Your task to perform on an android device: manage bookmarks in the chrome app Image 0: 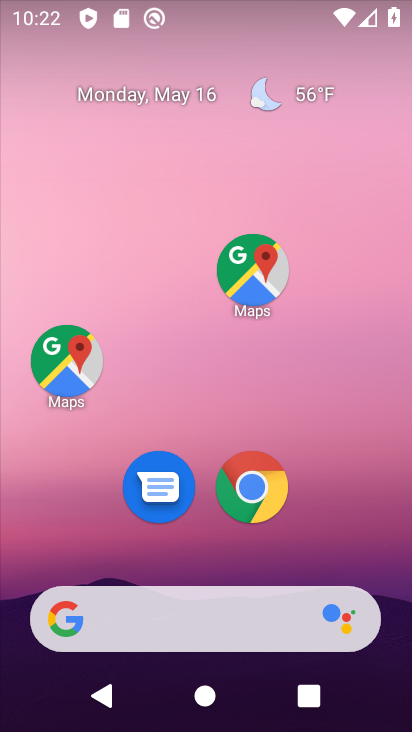
Step 0: drag from (302, 557) to (207, 151)
Your task to perform on an android device: manage bookmarks in the chrome app Image 1: 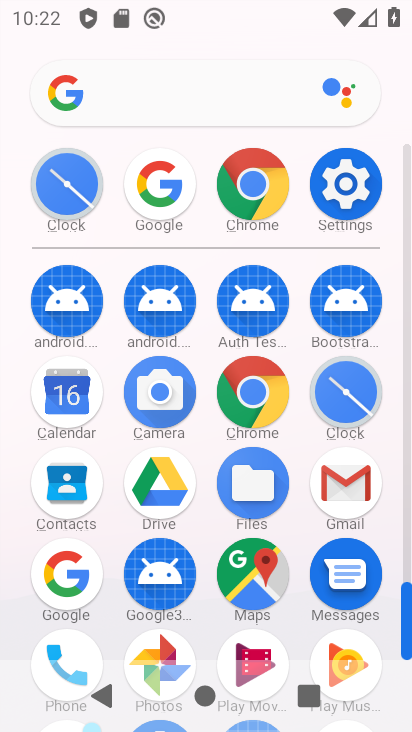
Step 1: click (232, 421)
Your task to perform on an android device: manage bookmarks in the chrome app Image 2: 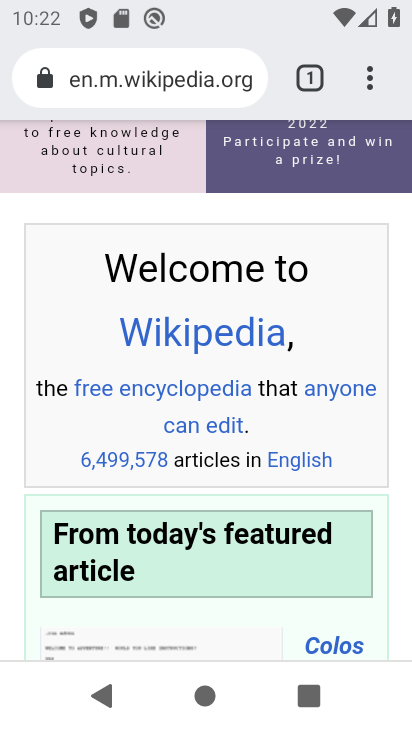
Step 2: click (349, 70)
Your task to perform on an android device: manage bookmarks in the chrome app Image 3: 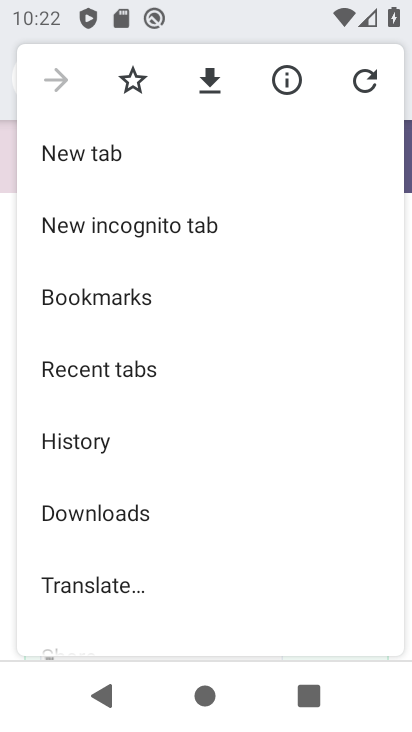
Step 3: click (109, 292)
Your task to perform on an android device: manage bookmarks in the chrome app Image 4: 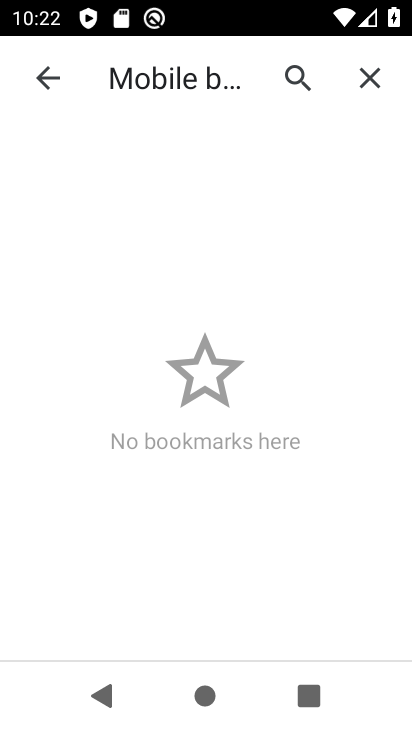
Step 4: task complete